Your task to perform on an android device: stop showing notifications on the lock screen Image 0: 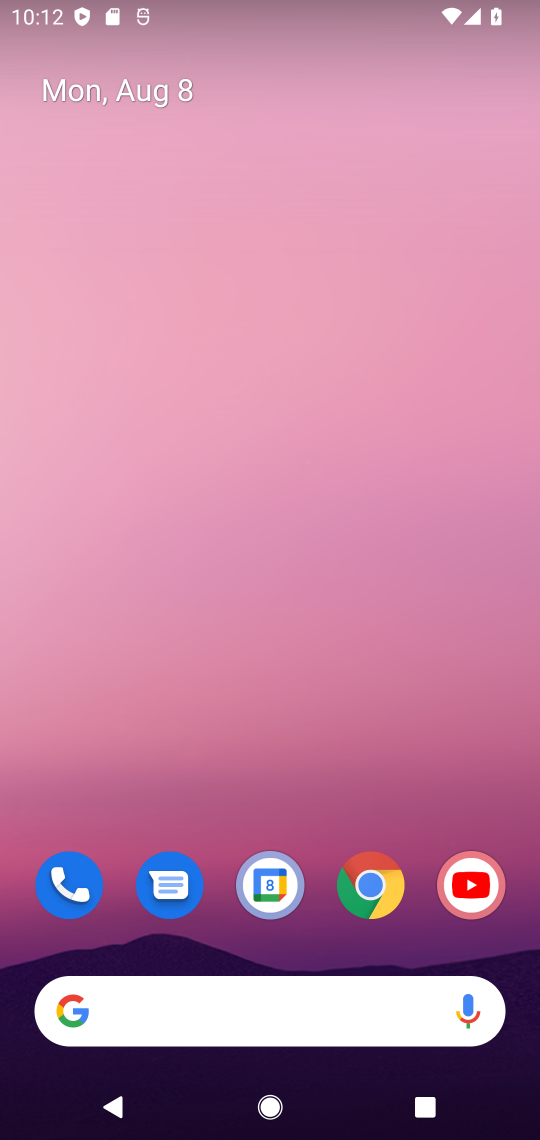
Step 0: drag from (166, 1082) to (216, 418)
Your task to perform on an android device: stop showing notifications on the lock screen Image 1: 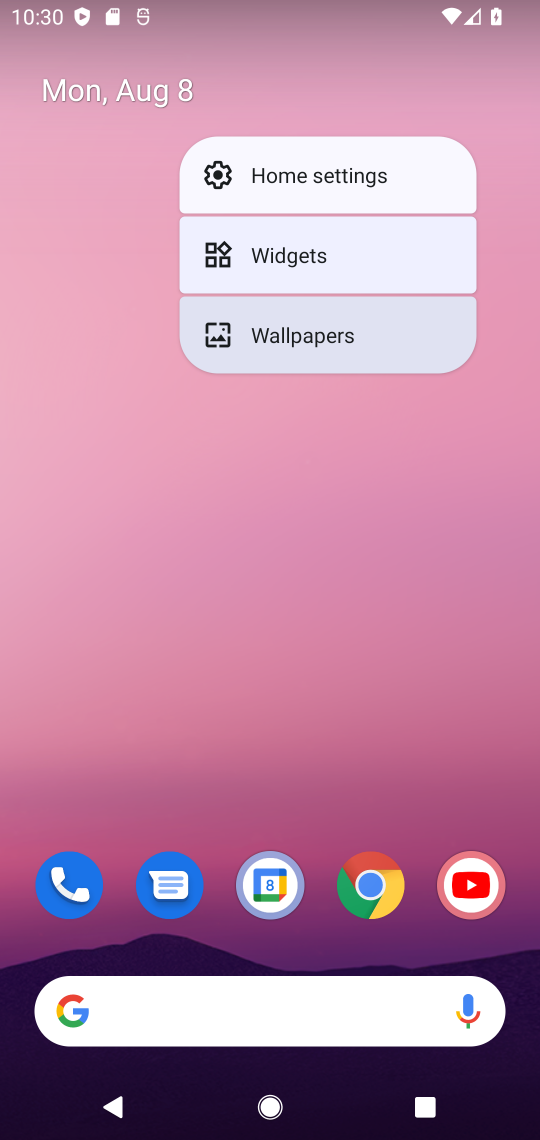
Step 1: drag from (72, 627) to (248, 260)
Your task to perform on an android device: stop showing notifications on the lock screen Image 2: 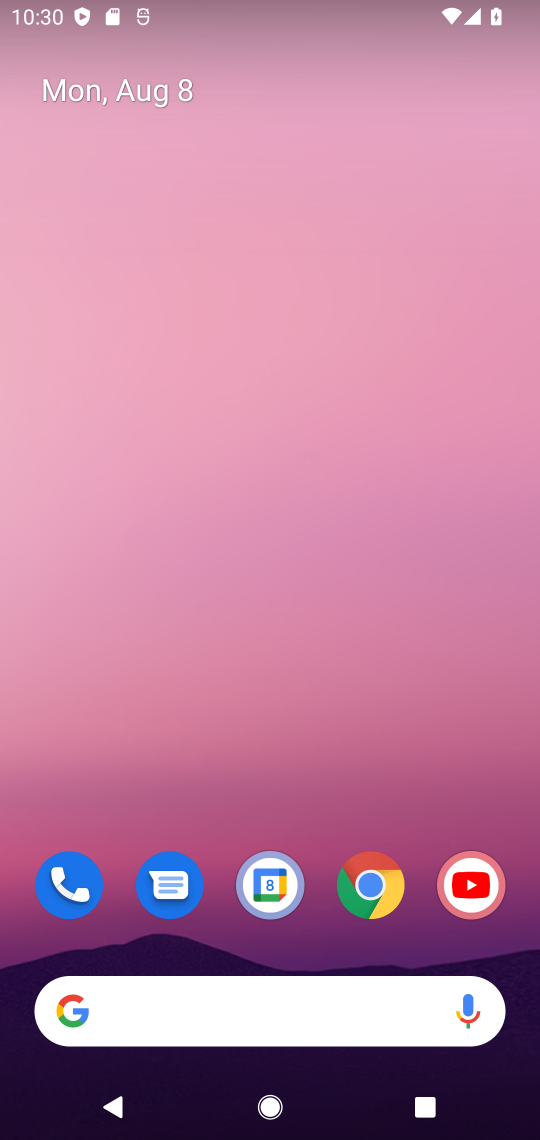
Step 2: drag from (159, 662) to (249, 283)
Your task to perform on an android device: stop showing notifications on the lock screen Image 3: 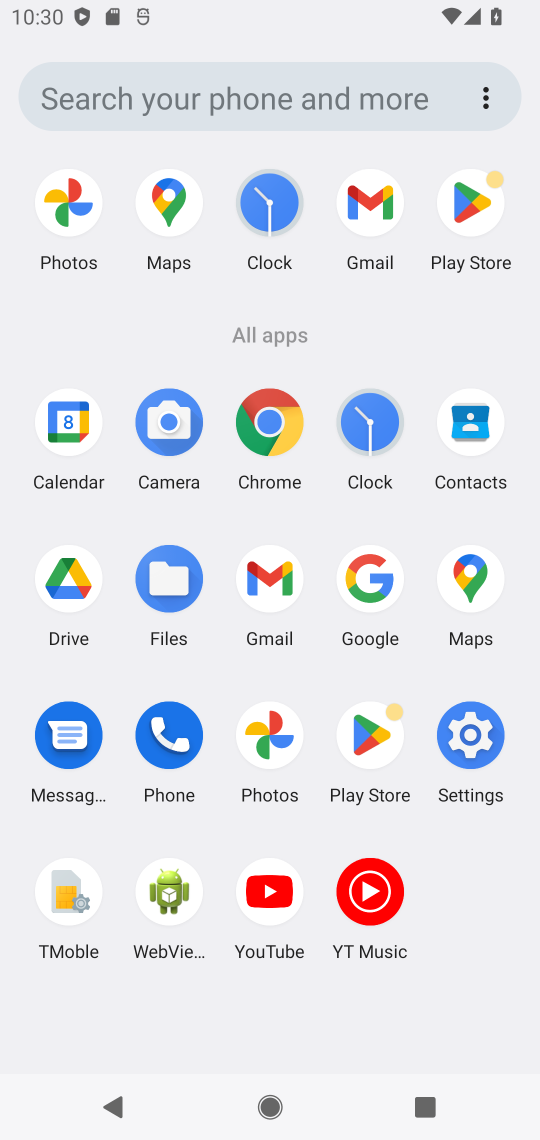
Step 3: click (461, 752)
Your task to perform on an android device: stop showing notifications on the lock screen Image 4: 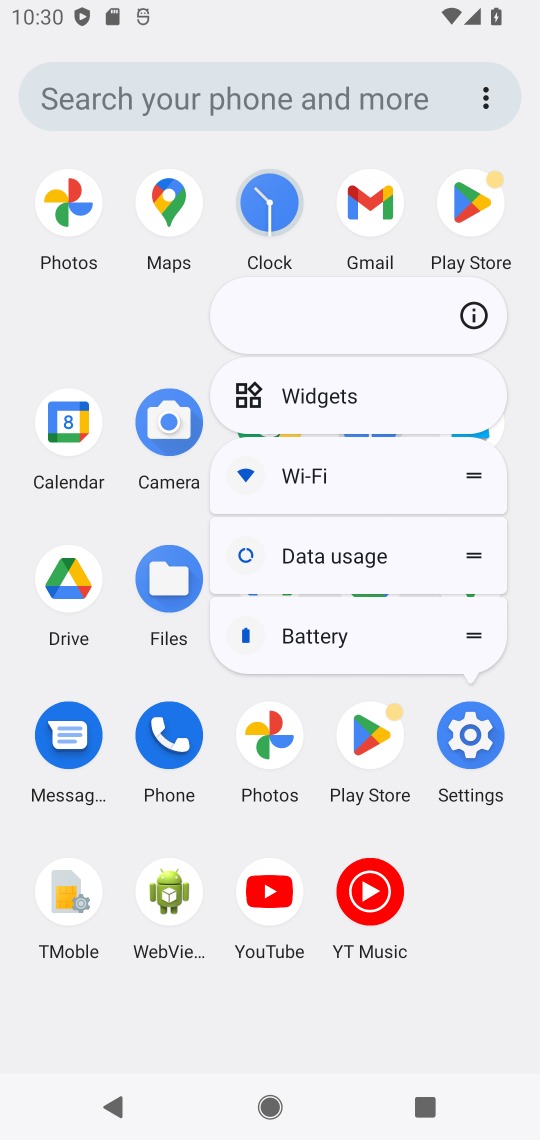
Step 4: click (461, 752)
Your task to perform on an android device: stop showing notifications on the lock screen Image 5: 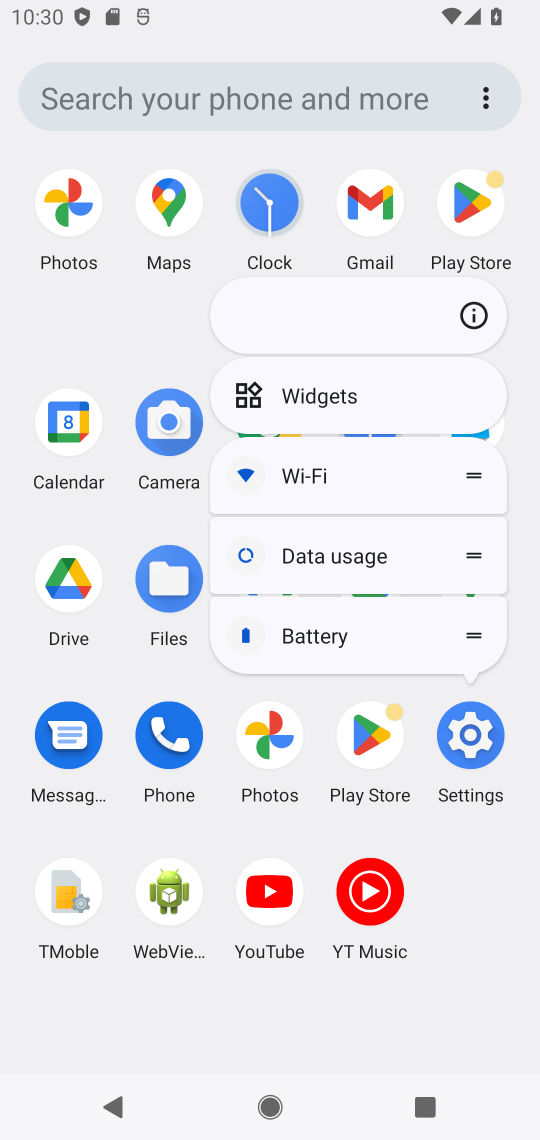
Step 5: click (477, 741)
Your task to perform on an android device: stop showing notifications on the lock screen Image 6: 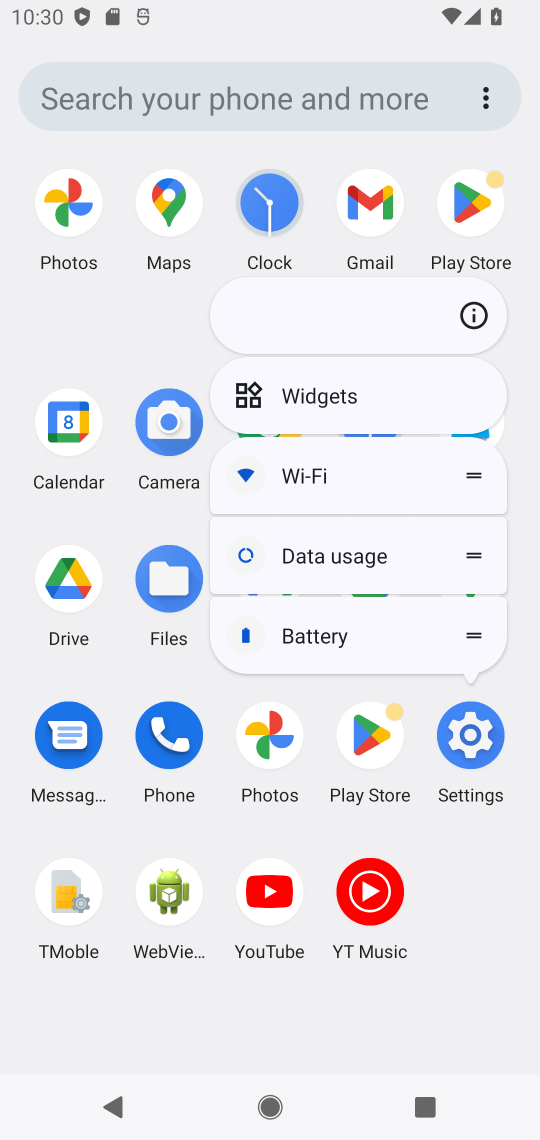
Step 6: click (477, 741)
Your task to perform on an android device: stop showing notifications on the lock screen Image 7: 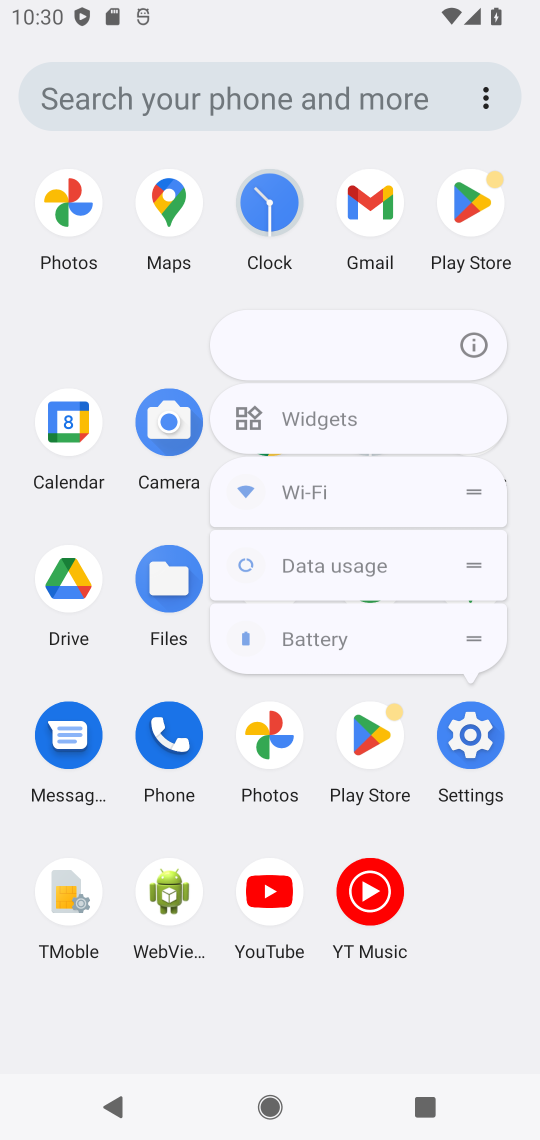
Step 7: click (477, 741)
Your task to perform on an android device: stop showing notifications on the lock screen Image 8: 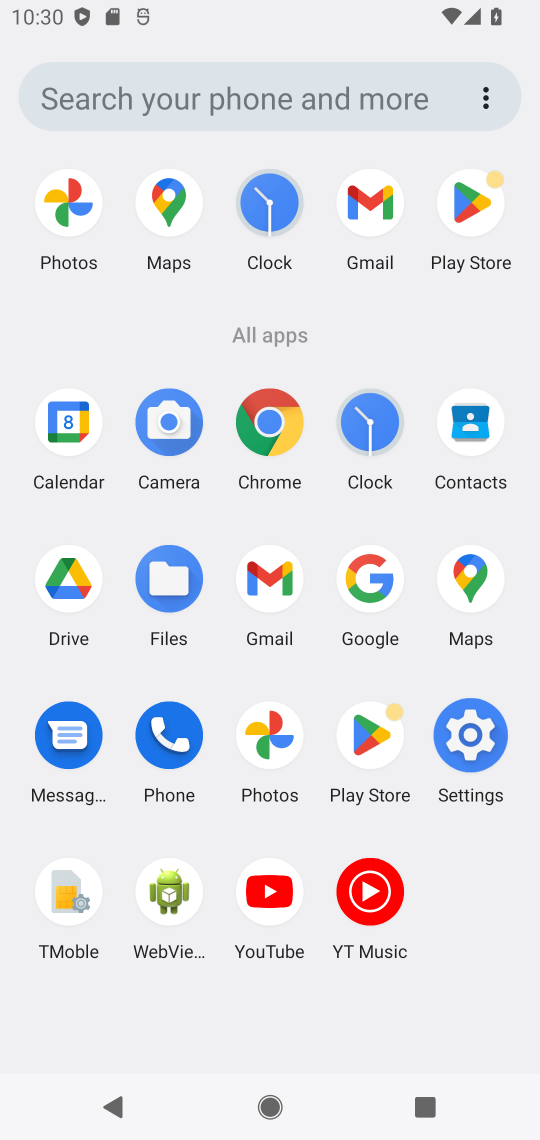
Step 8: click (477, 741)
Your task to perform on an android device: stop showing notifications on the lock screen Image 9: 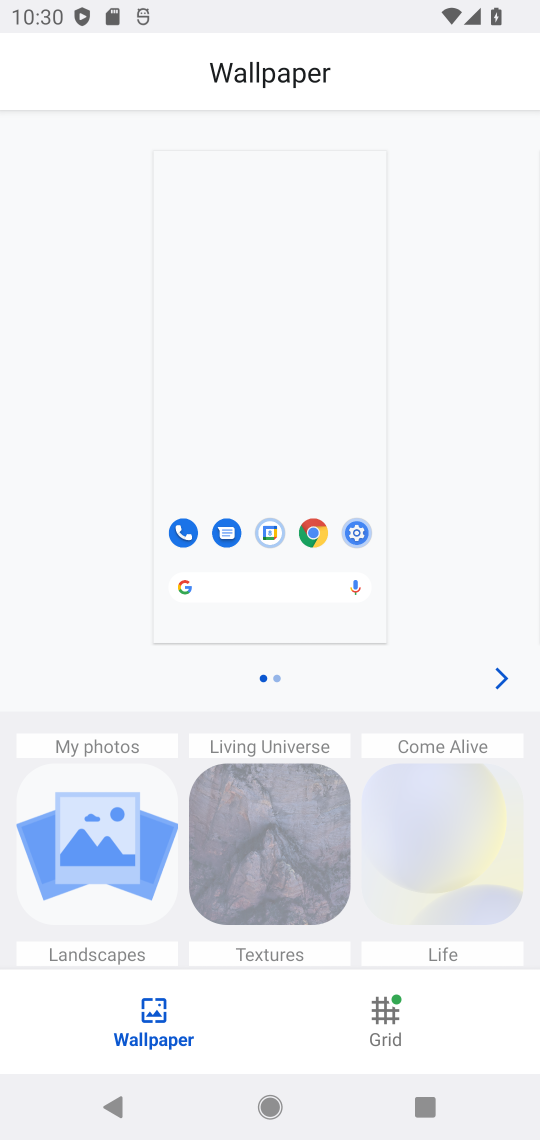
Step 9: click (126, 1102)
Your task to perform on an android device: stop showing notifications on the lock screen Image 10: 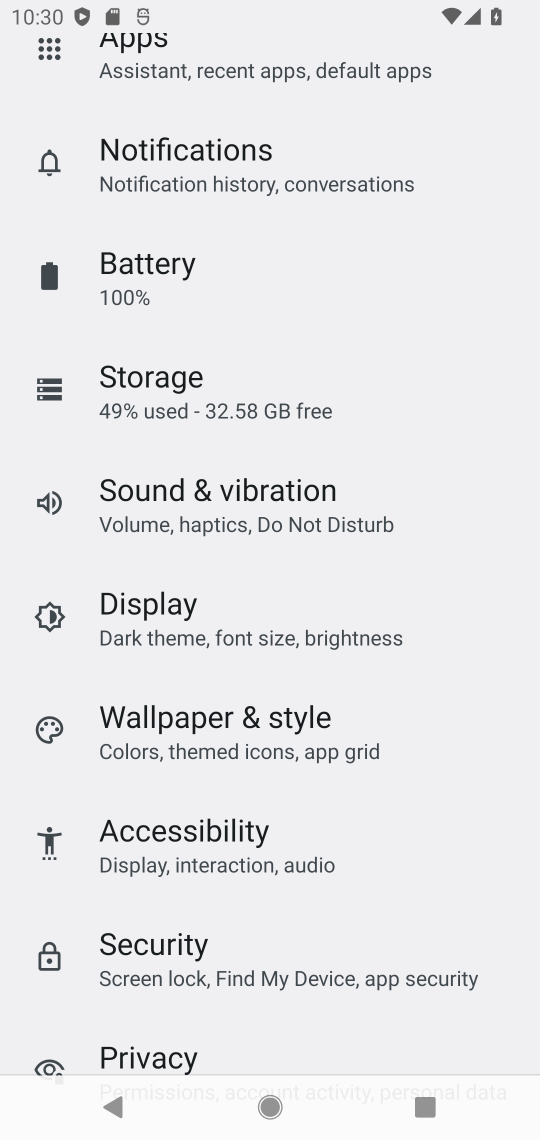
Step 10: click (272, 172)
Your task to perform on an android device: stop showing notifications on the lock screen Image 11: 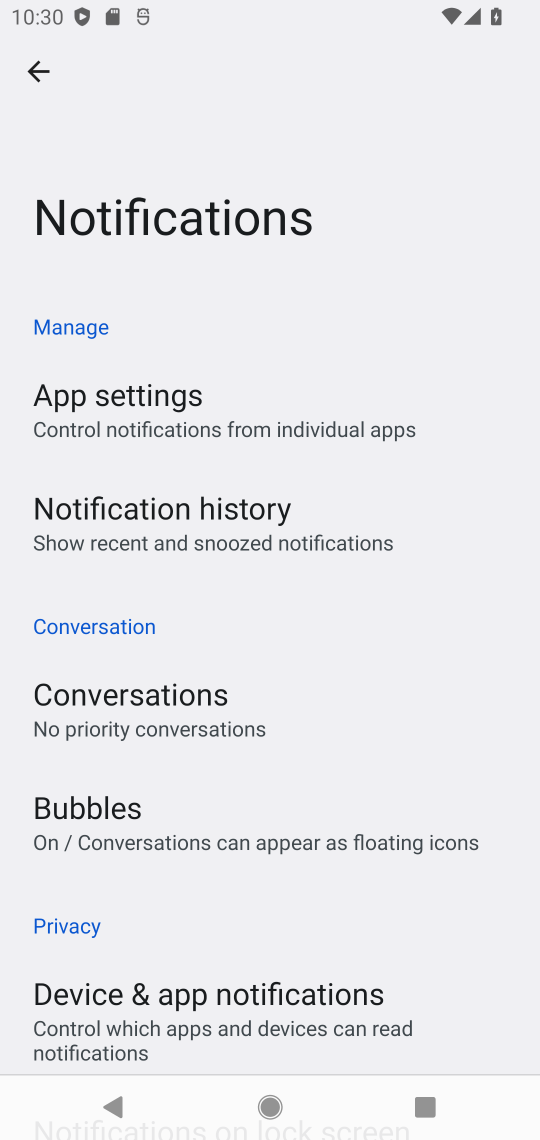
Step 11: drag from (268, 983) to (274, 185)
Your task to perform on an android device: stop showing notifications on the lock screen Image 12: 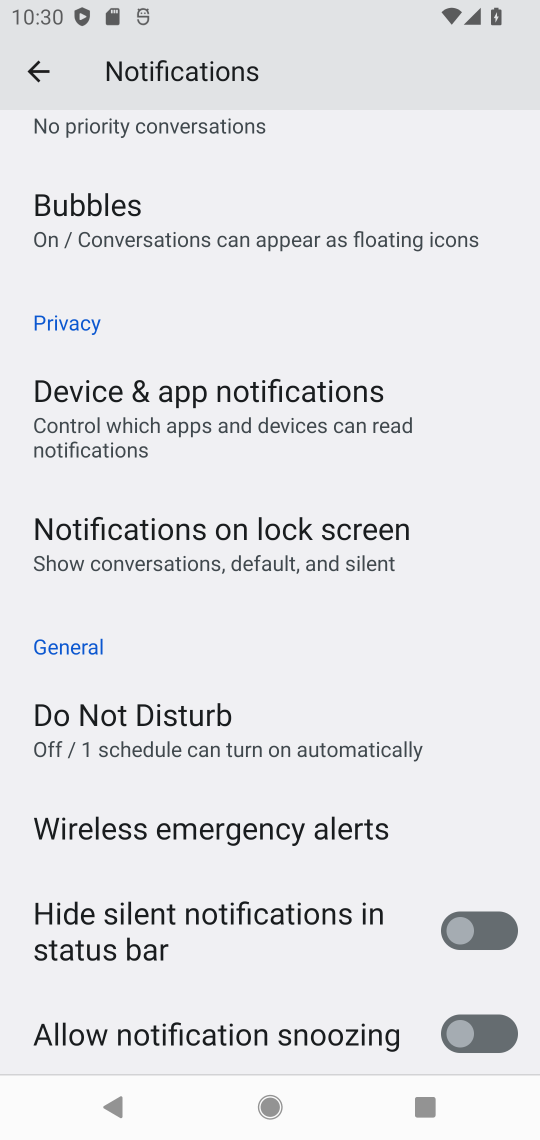
Step 12: click (296, 575)
Your task to perform on an android device: stop showing notifications on the lock screen Image 13: 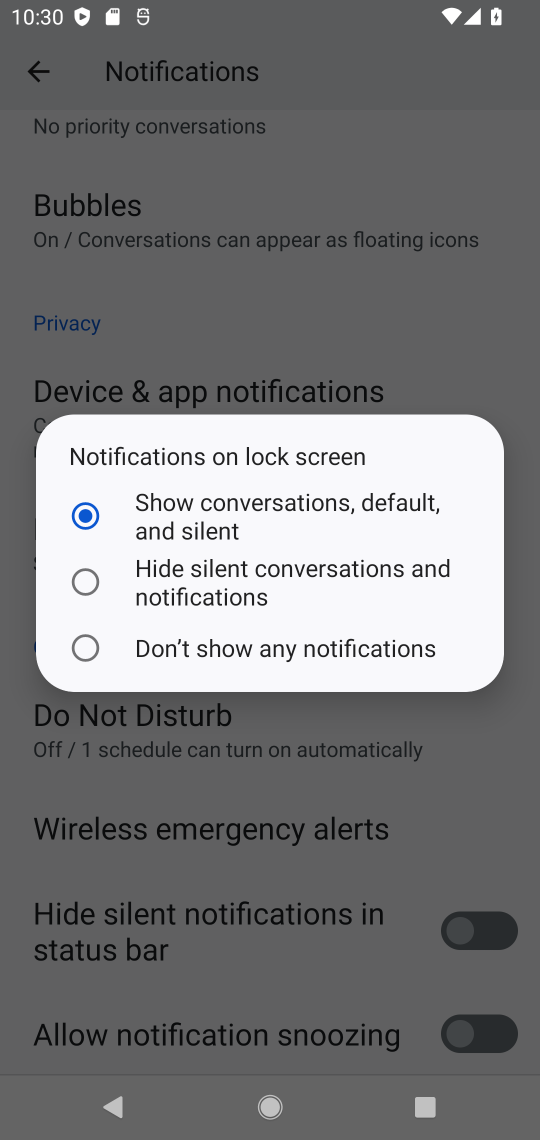
Step 13: click (186, 636)
Your task to perform on an android device: stop showing notifications on the lock screen Image 14: 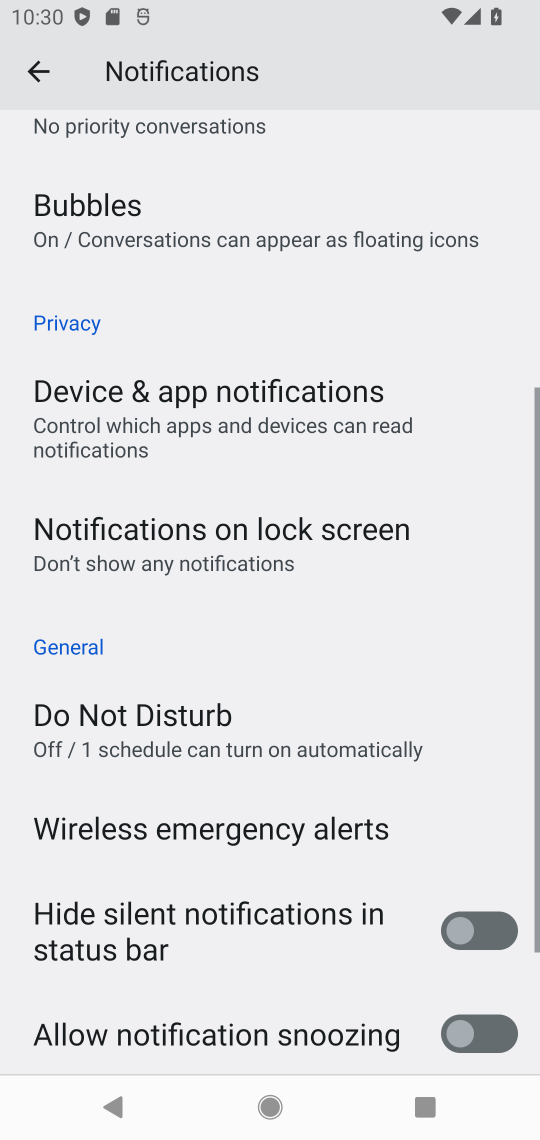
Step 14: task complete